Your task to perform on an android device: turn on sleep mode Image 0: 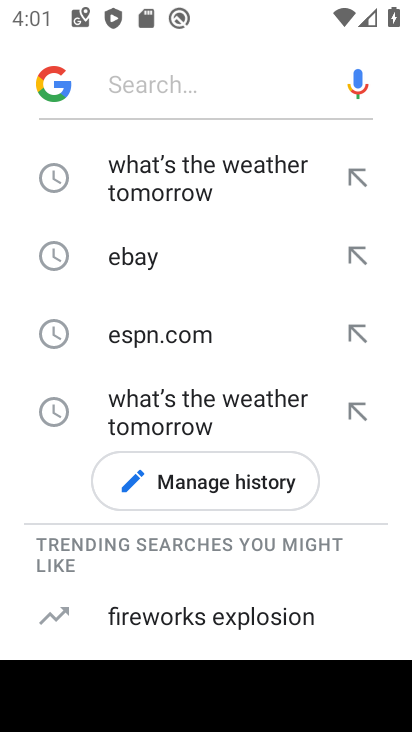
Step 0: press back button
Your task to perform on an android device: turn on sleep mode Image 1: 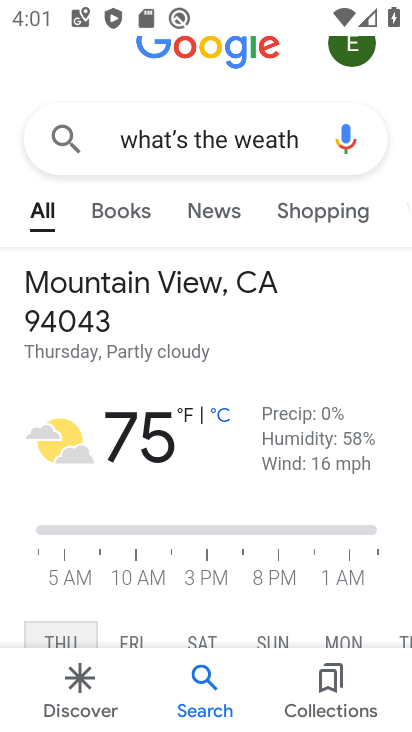
Step 1: press back button
Your task to perform on an android device: turn on sleep mode Image 2: 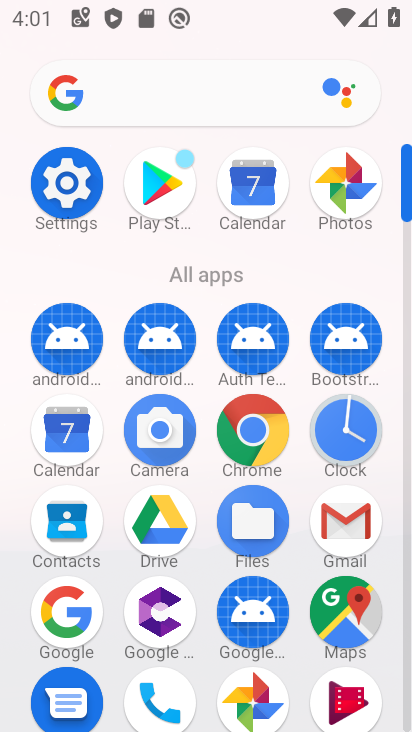
Step 2: press back button
Your task to perform on an android device: turn on sleep mode Image 3: 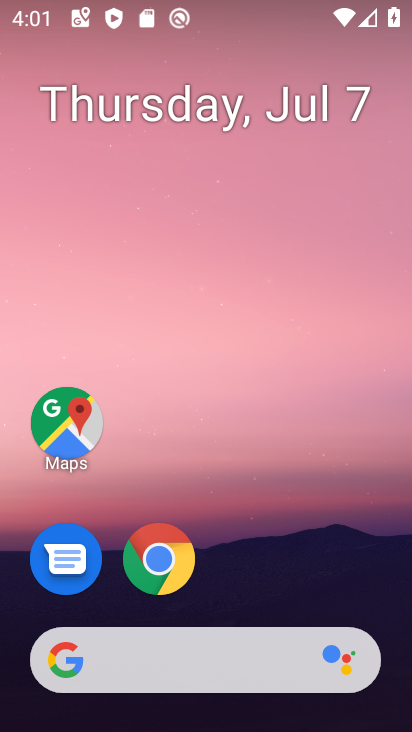
Step 3: drag from (187, 591) to (211, 119)
Your task to perform on an android device: turn on sleep mode Image 4: 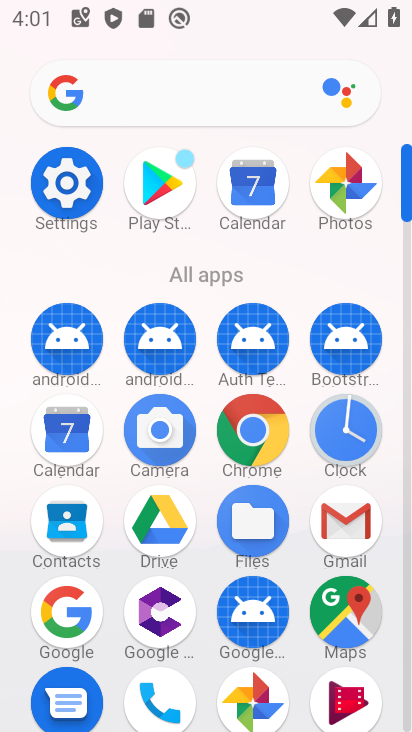
Step 4: click (68, 184)
Your task to perform on an android device: turn on sleep mode Image 5: 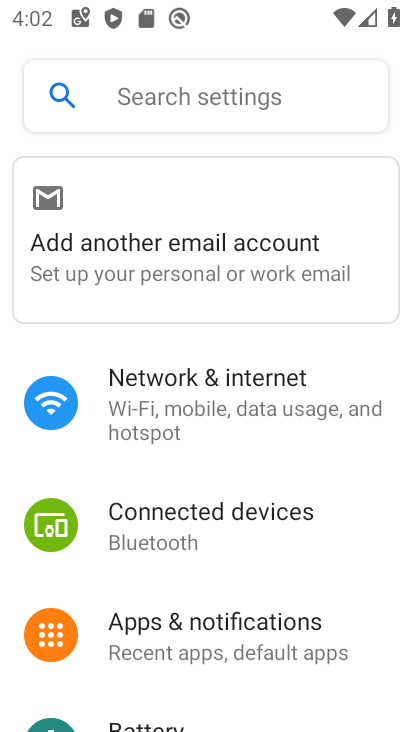
Step 5: click (172, 90)
Your task to perform on an android device: turn on sleep mode Image 6: 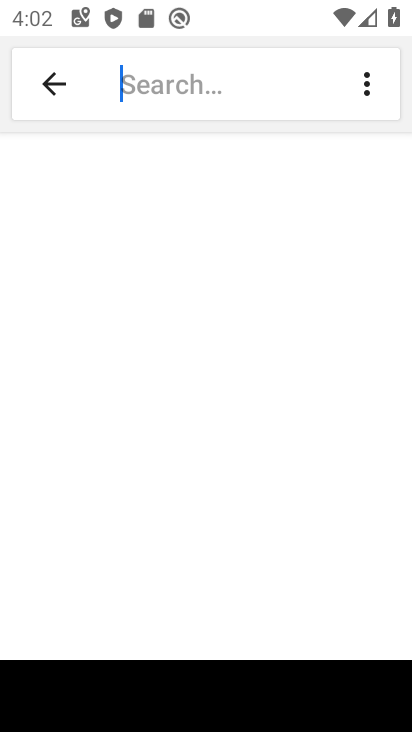
Step 6: type "sleep mode"
Your task to perform on an android device: turn on sleep mode Image 7: 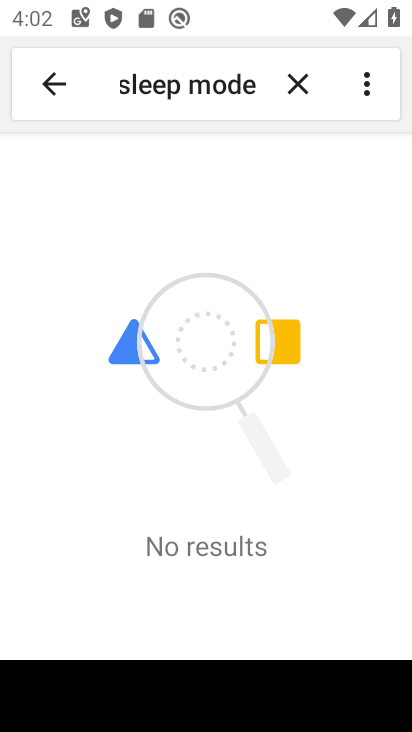
Step 7: task complete